Your task to perform on an android device: Add jbl flip 4 to the cart on costco.com Image 0: 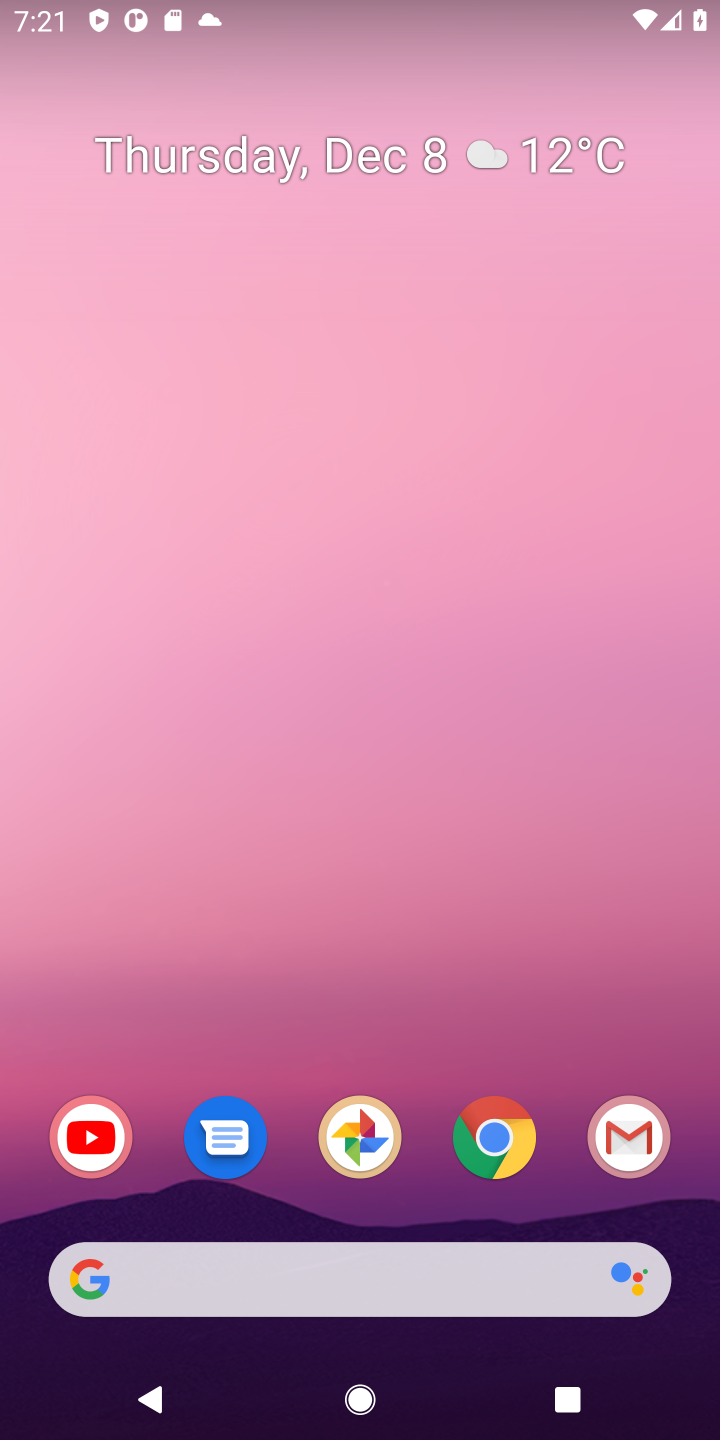
Step 0: click (493, 1147)
Your task to perform on an android device: Add jbl flip 4 to the cart on costco.com Image 1: 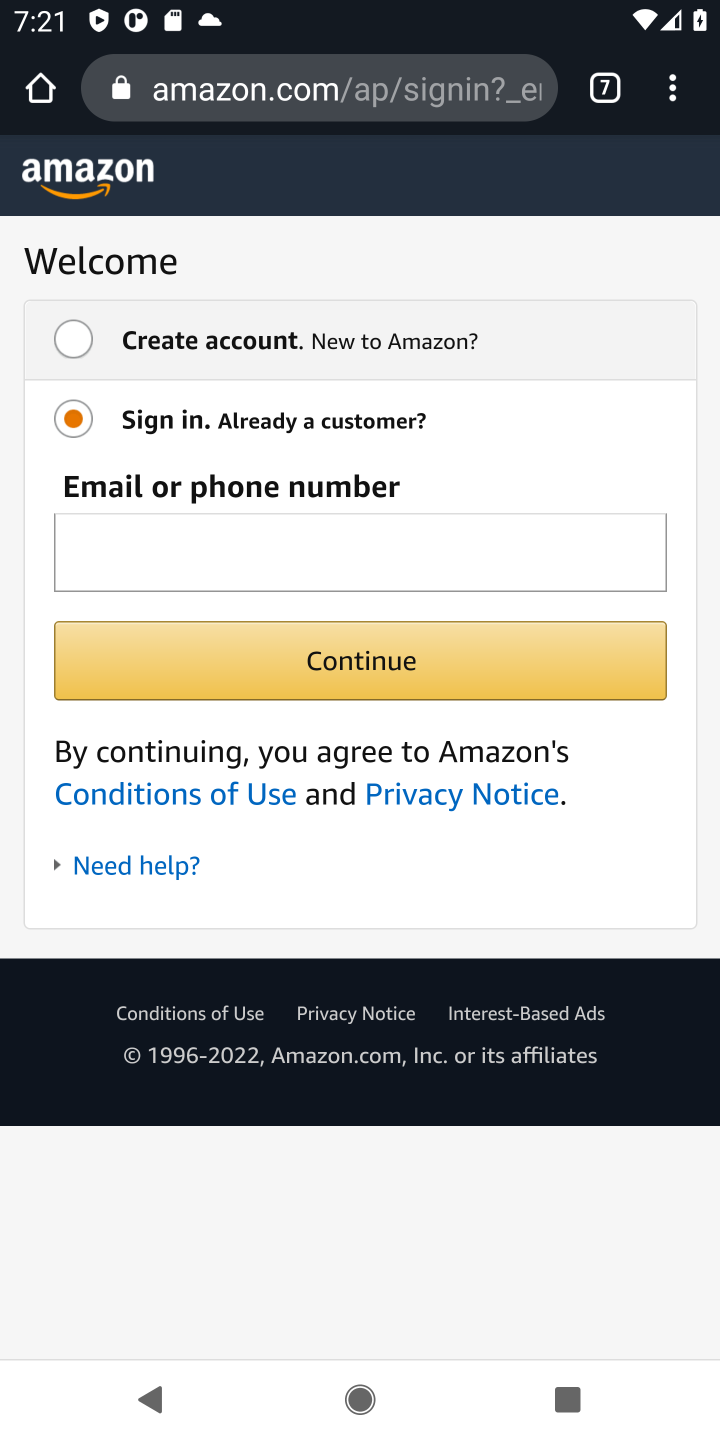
Step 1: click (613, 98)
Your task to perform on an android device: Add jbl flip 4 to the cart on costco.com Image 2: 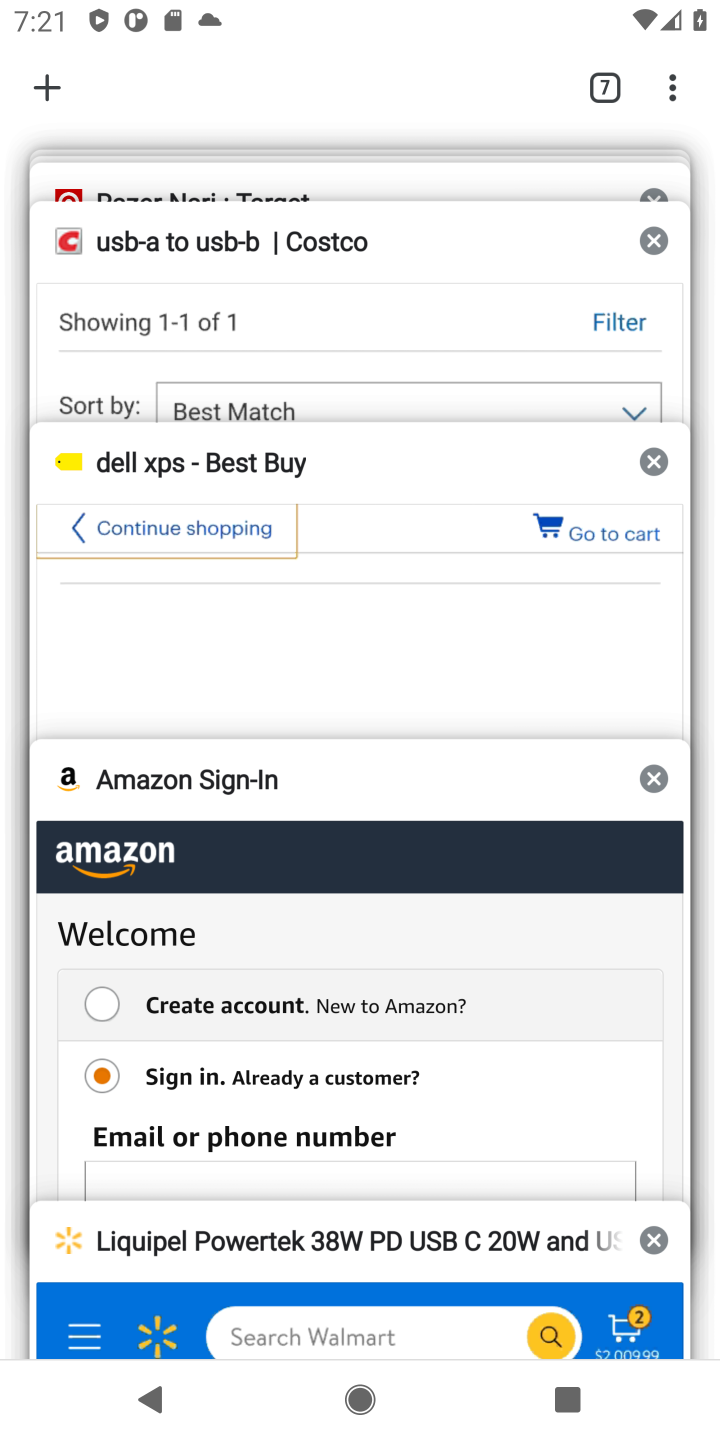
Step 2: click (325, 248)
Your task to perform on an android device: Add jbl flip 4 to the cart on costco.com Image 3: 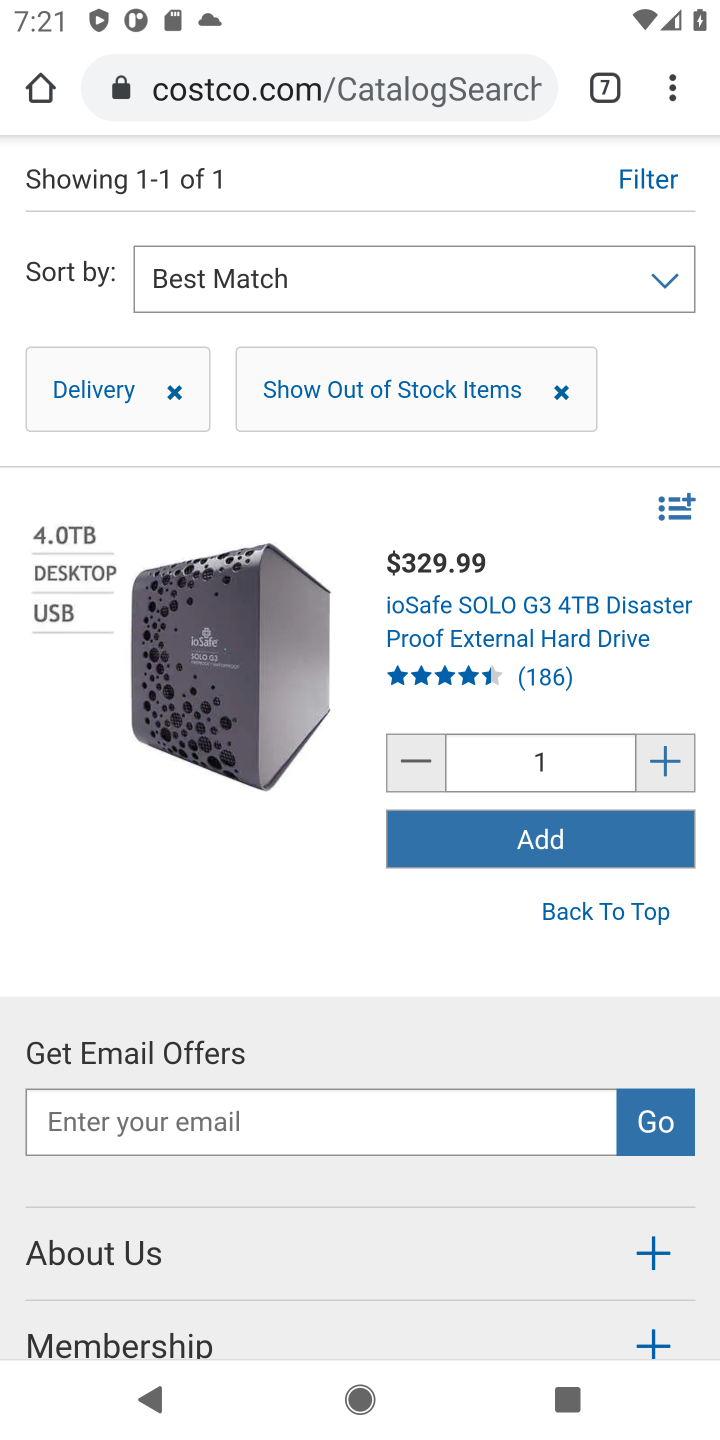
Step 3: drag from (306, 185) to (290, 671)
Your task to perform on an android device: Add jbl flip 4 to the cart on costco.com Image 4: 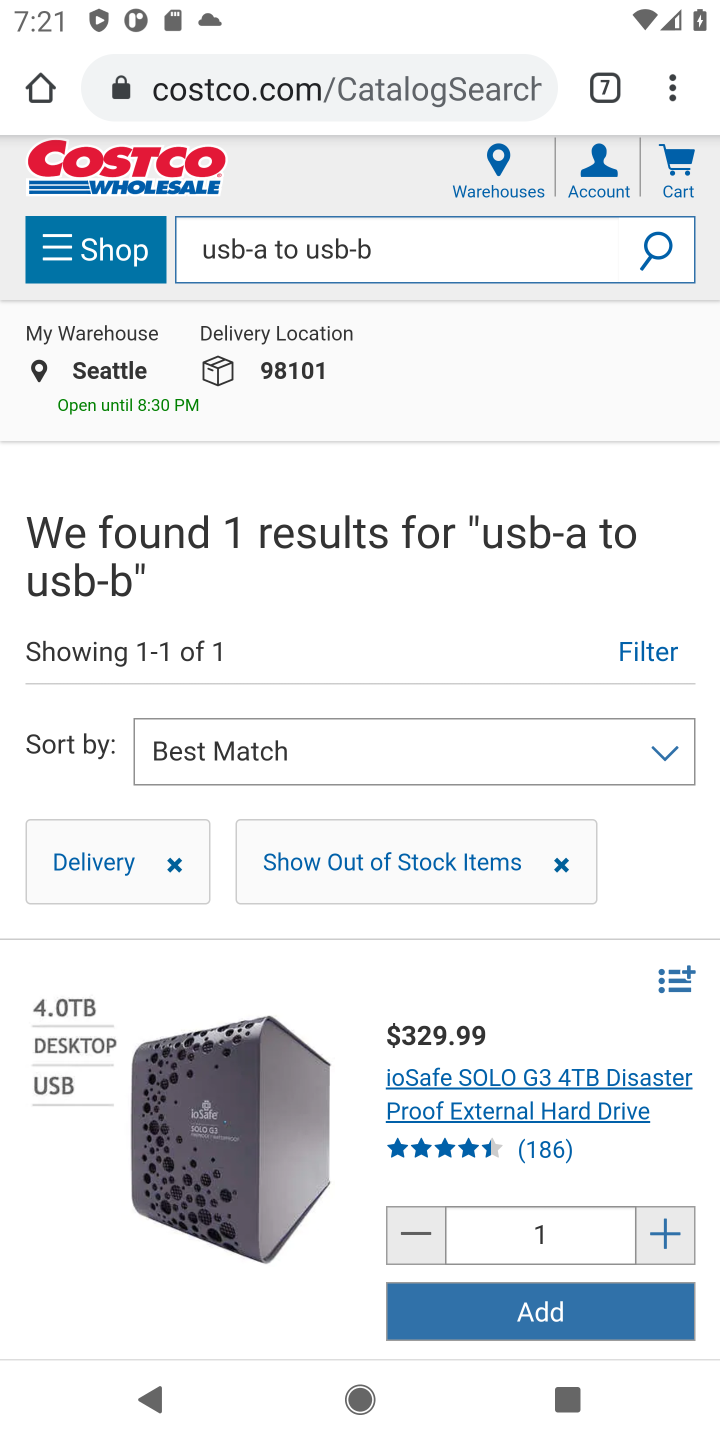
Step 4: click (397, 244)
Your task to perform on an android device: Add jbl flip 4 to the cart on costco.com Image 5: 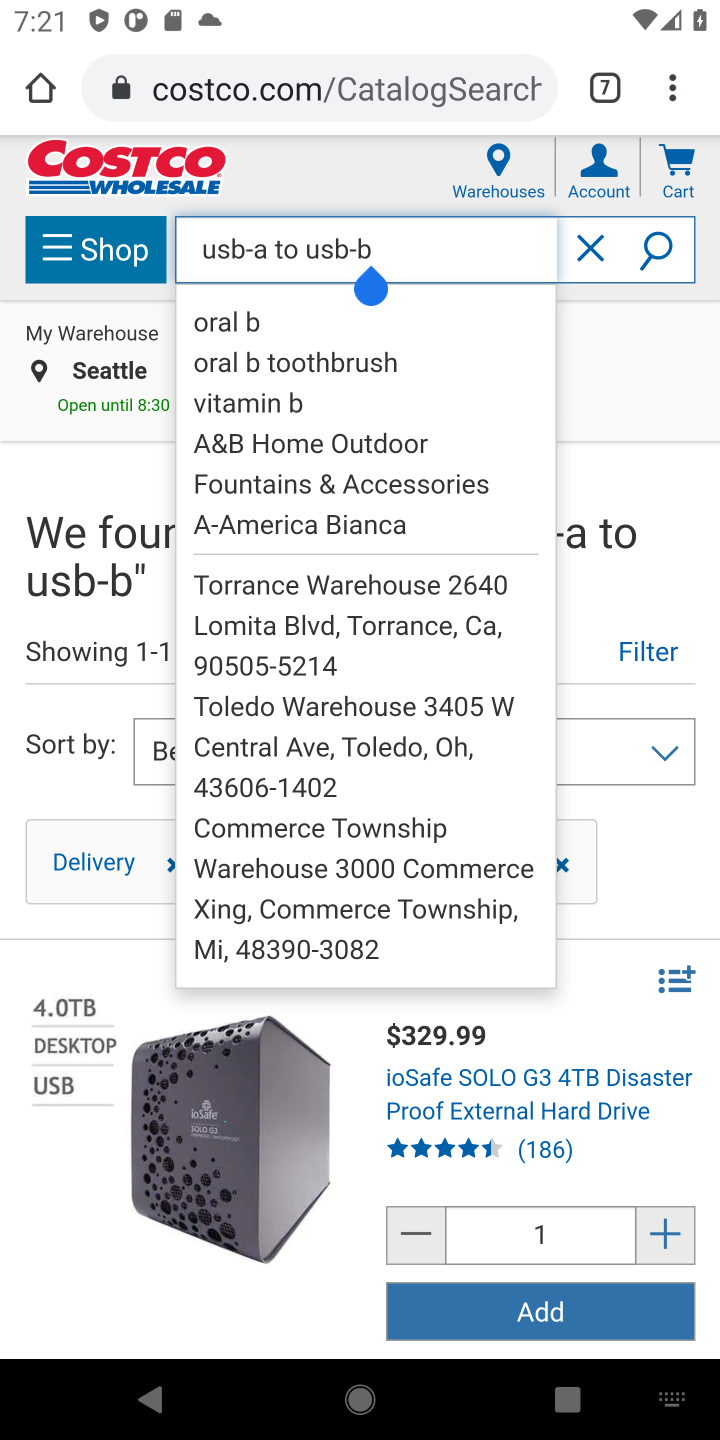
Step 5: click (591, 252)
Your task to perform on an android device: Add jbl flip 4 to the cart on costco.com Image 6: 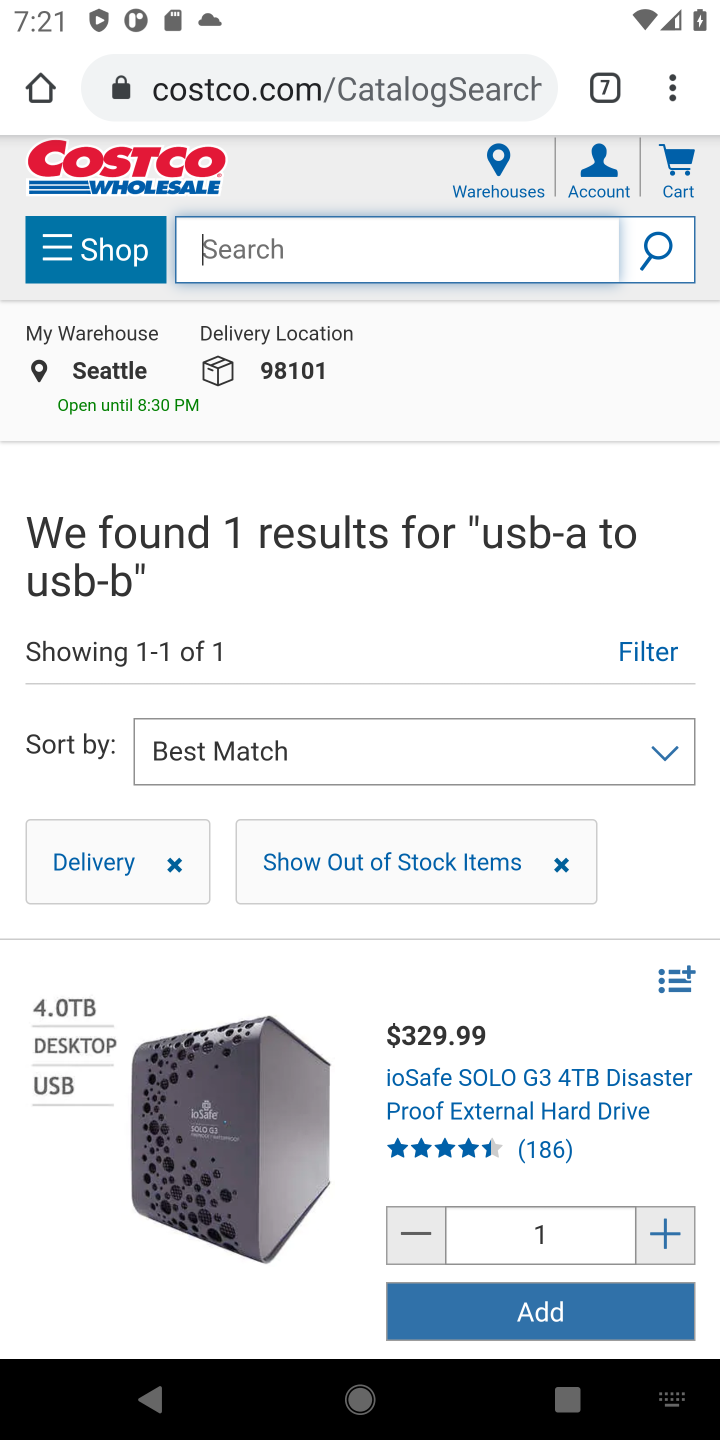
Step 6: type "jbl flip 4"
Your task to perform on an android device: Add jbl flip 4 to the cart on costco.com Image 7: 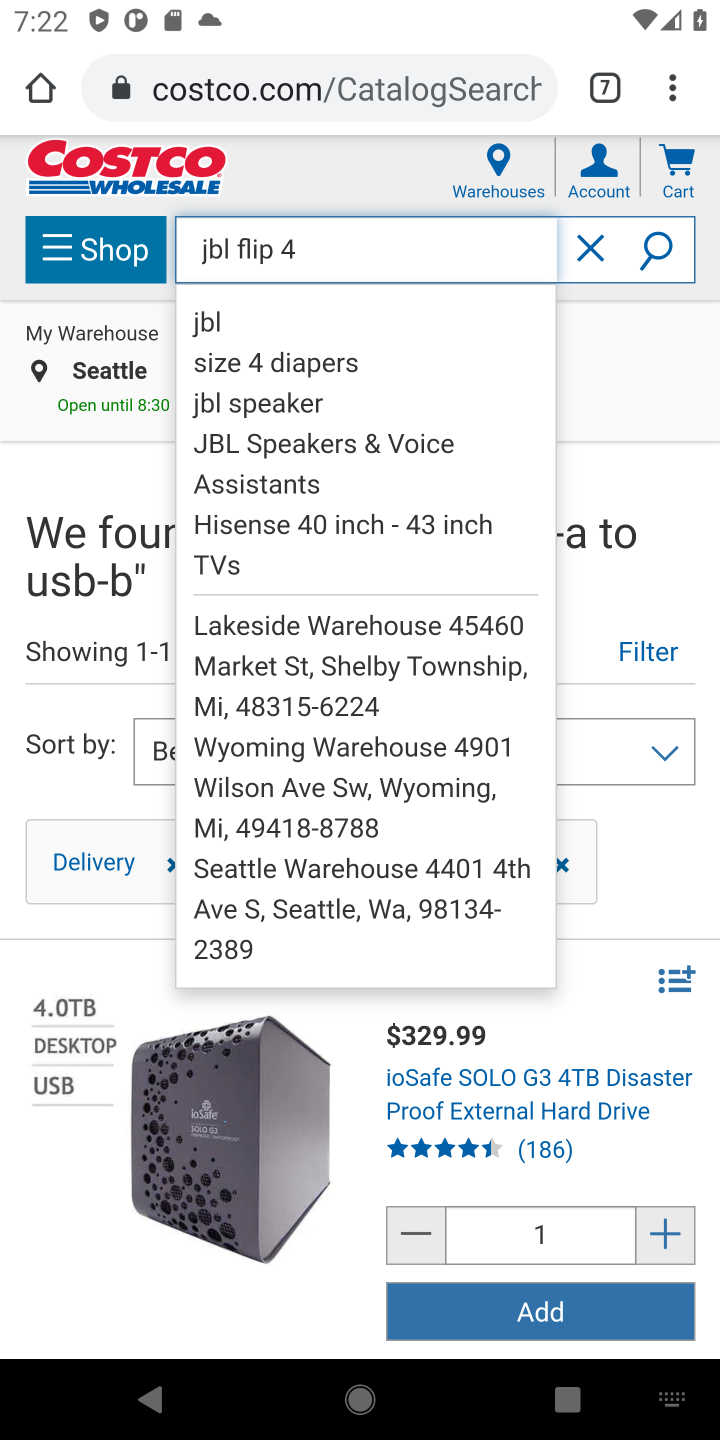
Step 7: click (660, 248)
Your task to perform on an android device: Add jbl flip 4 to the cart on costco.com Image 8: 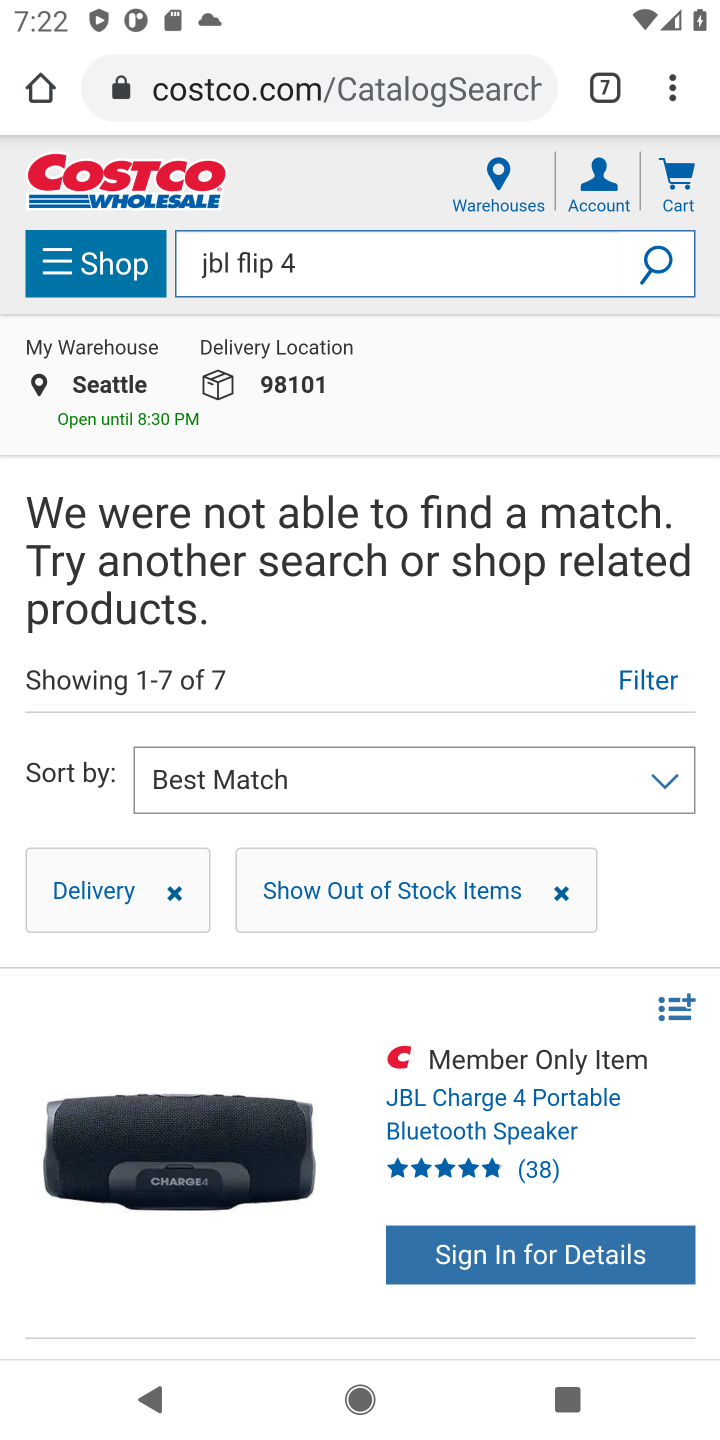
Step 8: task complete